Your task to perform on an android device: Open the map Image 0: 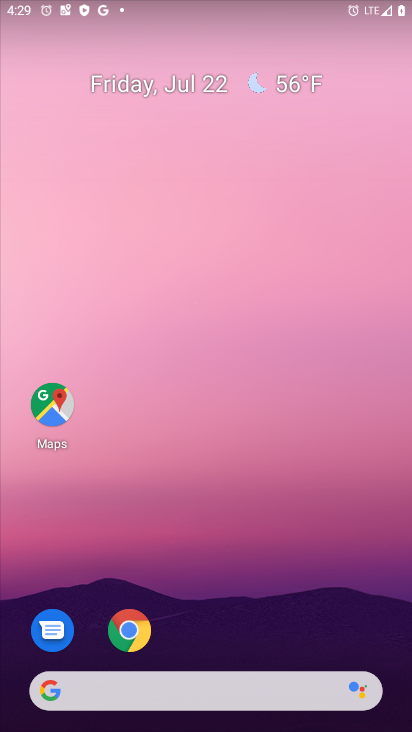
Step 0: click (68, 418)
Your task to perform on an android device: Open the map Image 1: 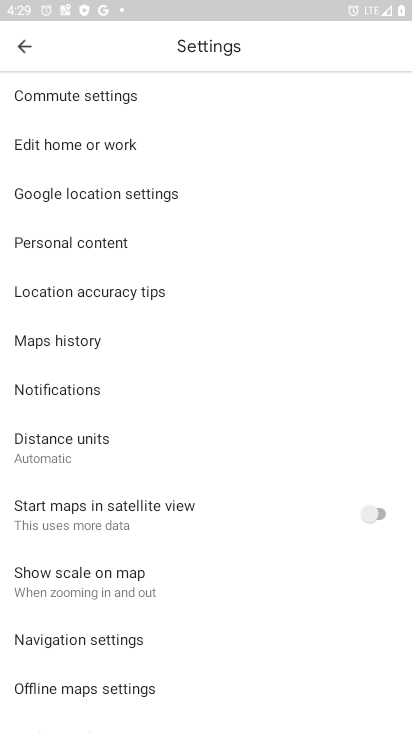
Step 1: task complete